Your task to perform on an android device: Open privacy settings Image 0: 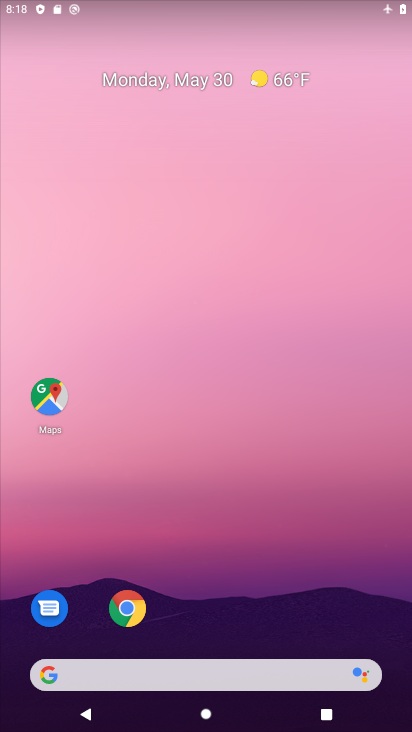
Step 0: click (243, 85)
Your task to perform on an android device: Open privacy settings Image 1: 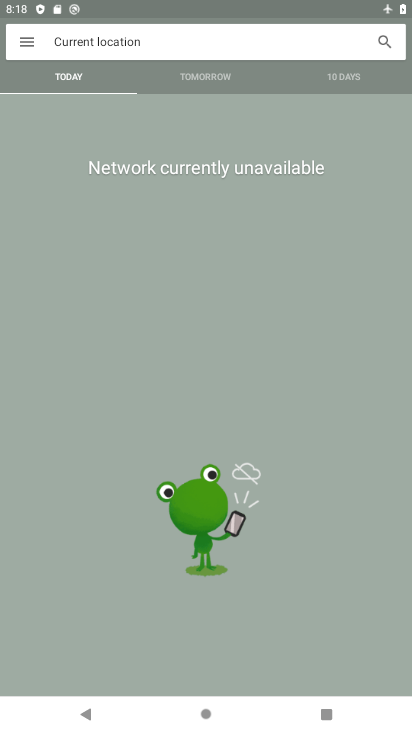
Step 1: press home button
Your task to perform on an android device: Open privacy settings Image 2: 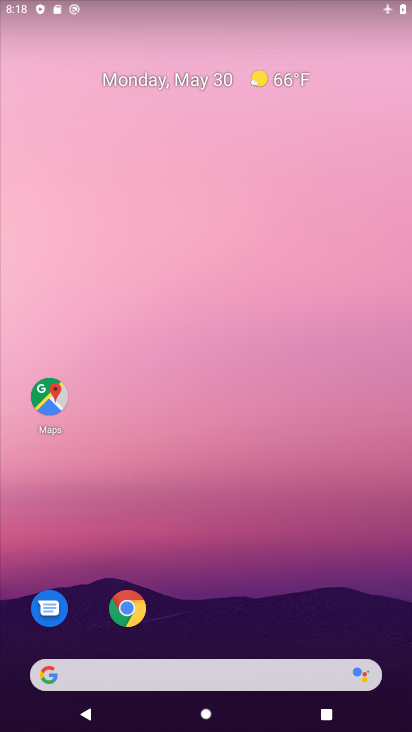
Step 2: drag from (226, 728) to (169, 106)
Your task to perform on an android device: Open privacy settings Image 3: 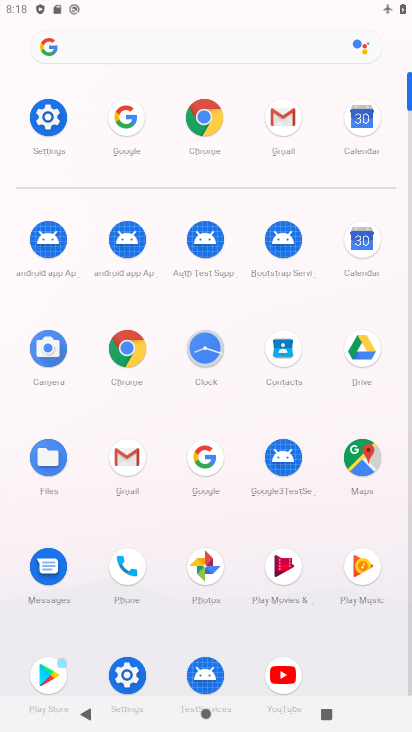
Step 3: click (52, 116)
Your task to perform on an android device: Open privacy settings Image 4: 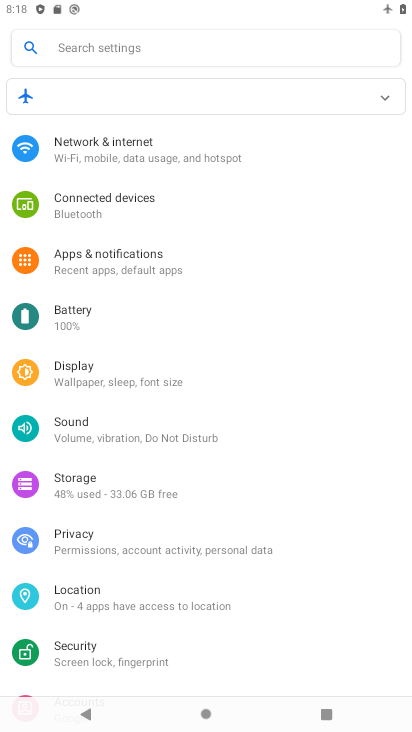
Step 4: click (97, 541)
Your task to perform on an android device: Open privacy settings Image 5: 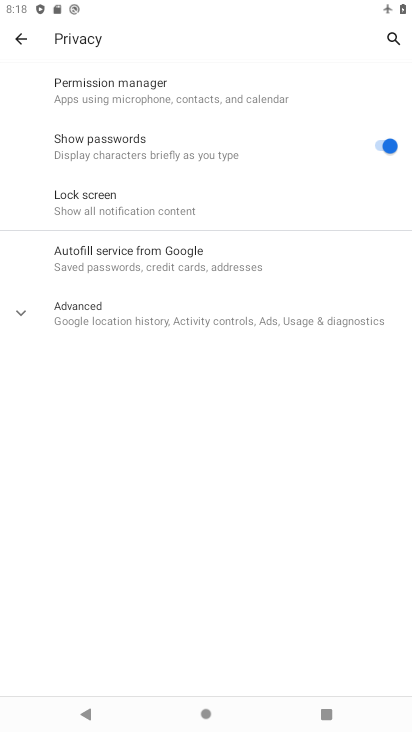
Step 5: task complete